Your task to perform on an android device: Go to notification settings Image 0: 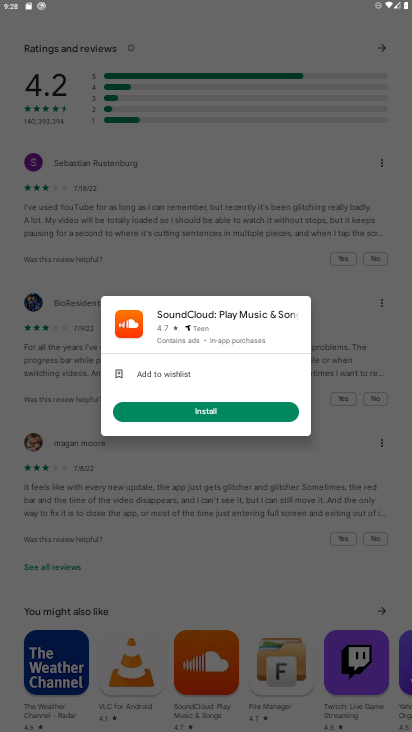
Step 0: press home button
Your task to perform on an android device: Go to notification settings Image 1: 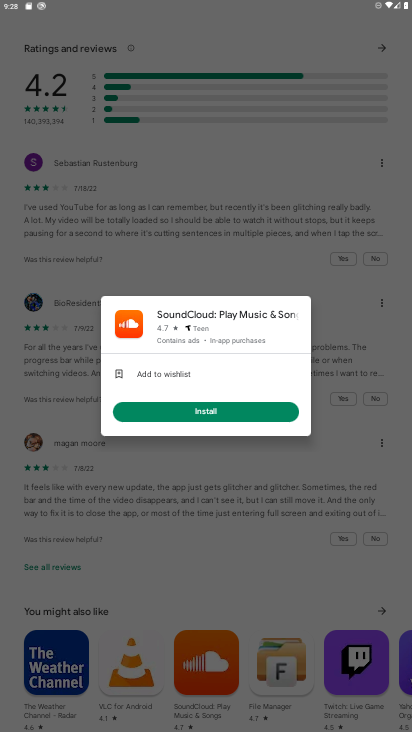
Step 1: press home button
Your task to perform on an android device: Go to notification settings Image 2: 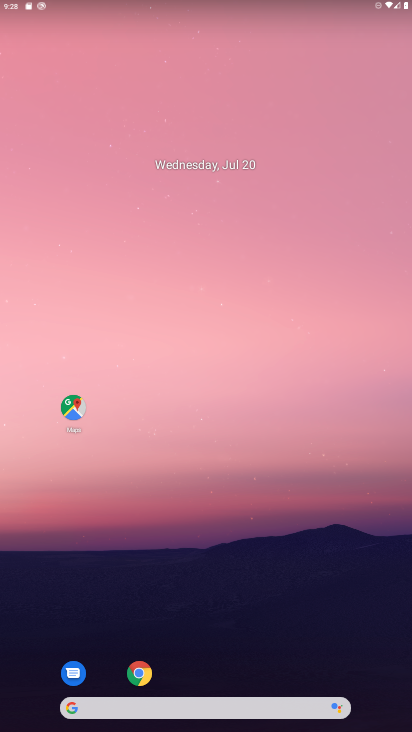
Step 2: drag from (183, 665) to (266, 110)
Your task to perform on an android device: Go to notification settings Image 3: 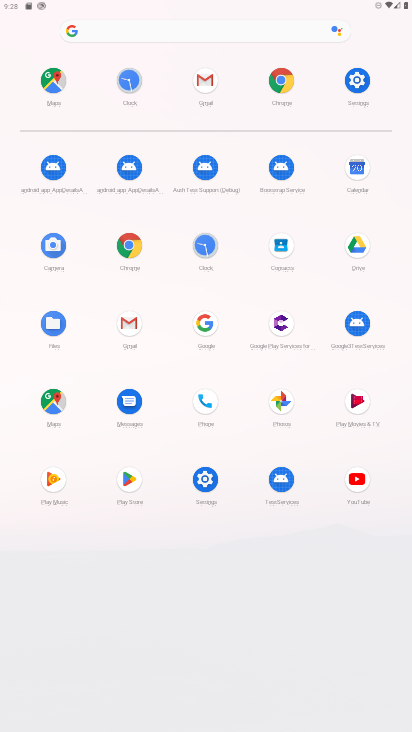
Step 3: click (198, 475)
Your task to perform on an android device: Go to notification settings Image 4: 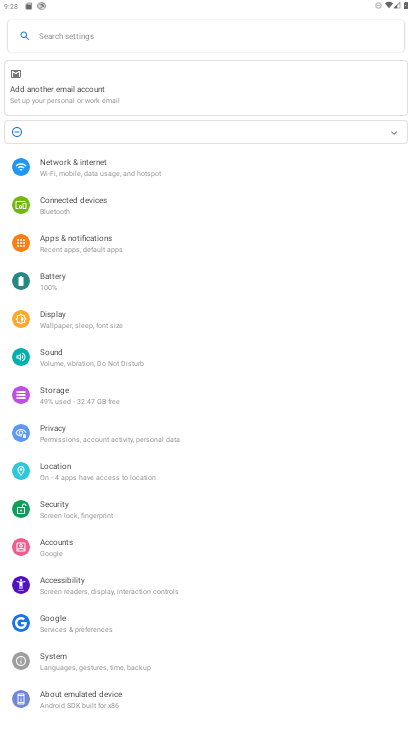
Step 4: click (91, 240)
Your task to perform on an android device: Go to notification settings Image 5: 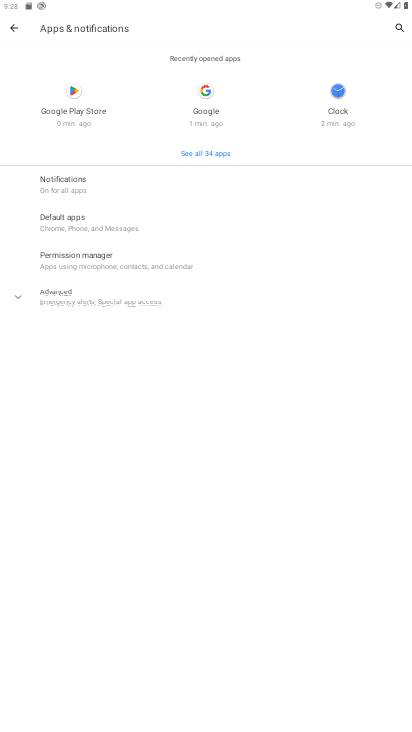
Step 5: click (130, 190)
Your task to perform on an android device: Go to notification settings Image 6: 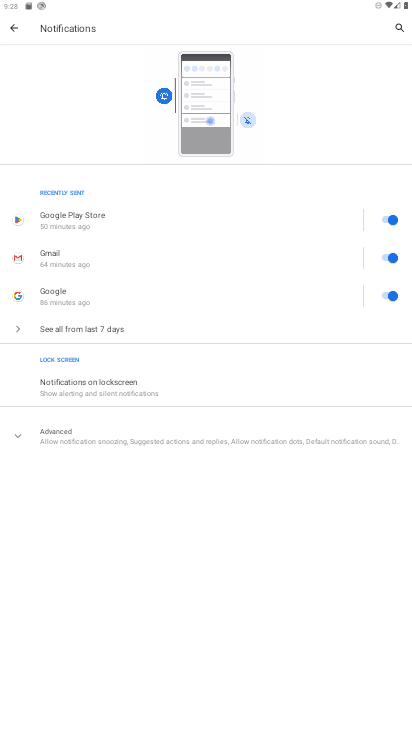
Step 6: click (95, 437)
Your task to perform on an android device: Go to notification settings Image 7: 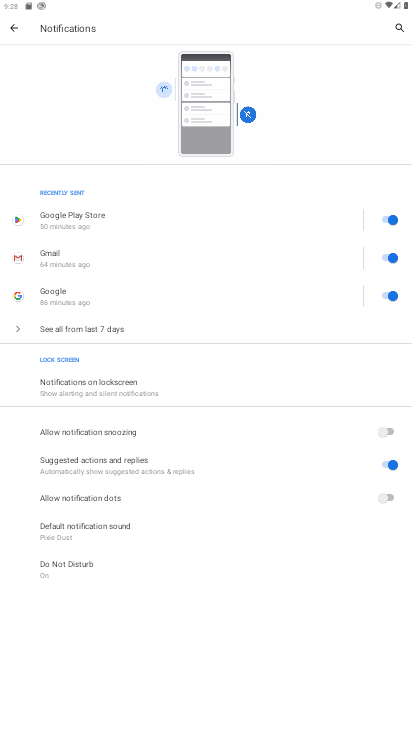
Step 7: task complete